Your task to perform on an android device: clear history in the chrome app Image 0: 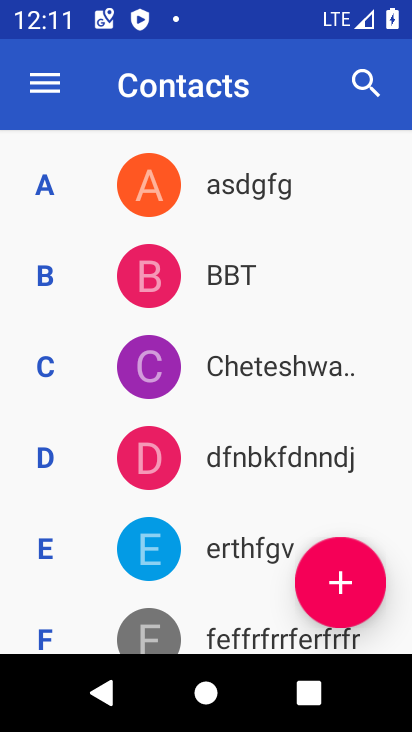
Step 0: press home button
Your task to perform on an android device: clear history in the chrome app Image 1: 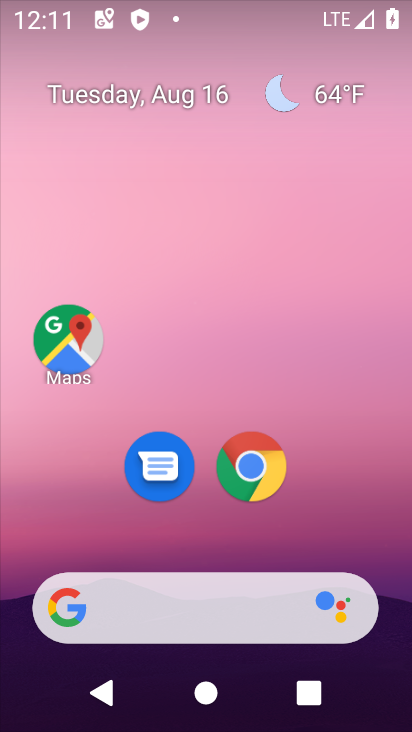
Step 1: drag from (232, 595) to (227, 95)
Your task to perform on an android device: clear history in the chrome app Image 2: 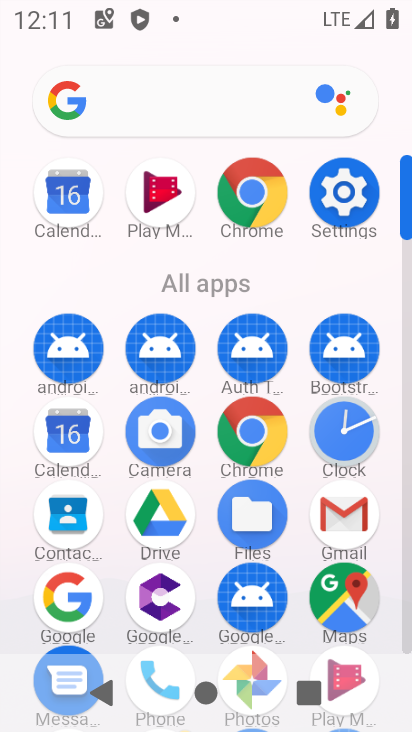
Step 2: click (265, 431)
Your task to perform on an android device: clear history in the chrome app Image 3: 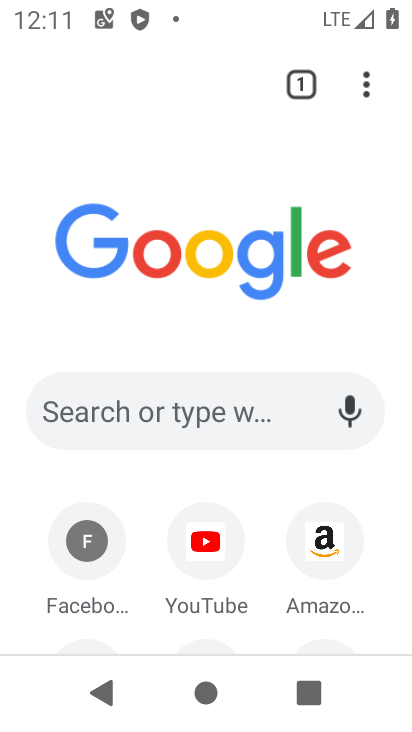
Step 3: click (376, 81)
Your task to perform on an android device: clear history in the chrome app Image 4: 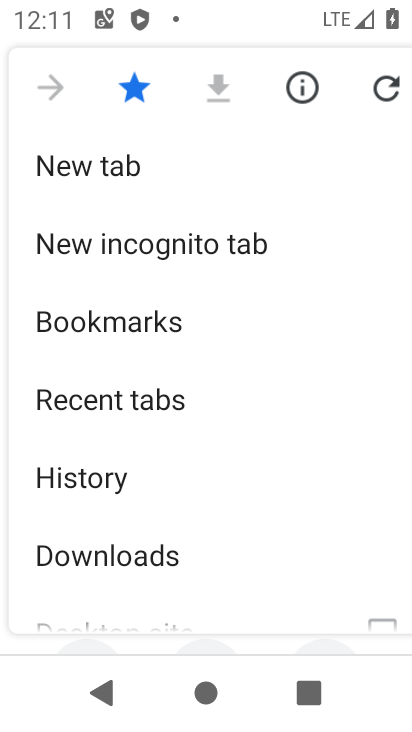
Step 4: click (91, 464)
Your task to perform on an android device: clear history in the chrome app Image 5: 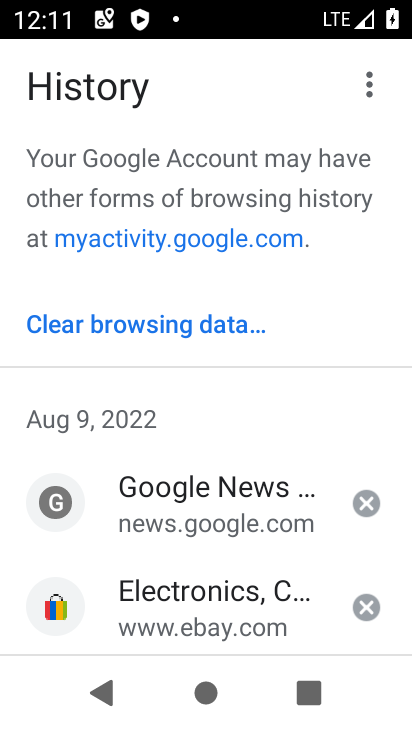
Step 5: drag from (200, 591) to (189, 401)
Your task to perform on an android device: clear history in the chrome app Image 6: 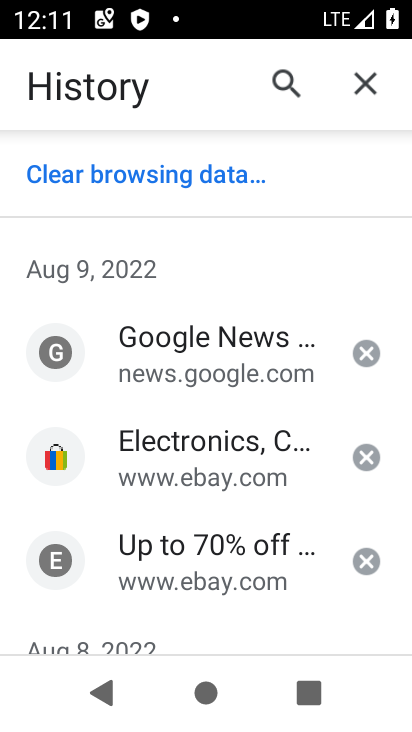
Step 6: click (177, 174)
Your task to perform on an android device: clear history in the chrome app Image 7: 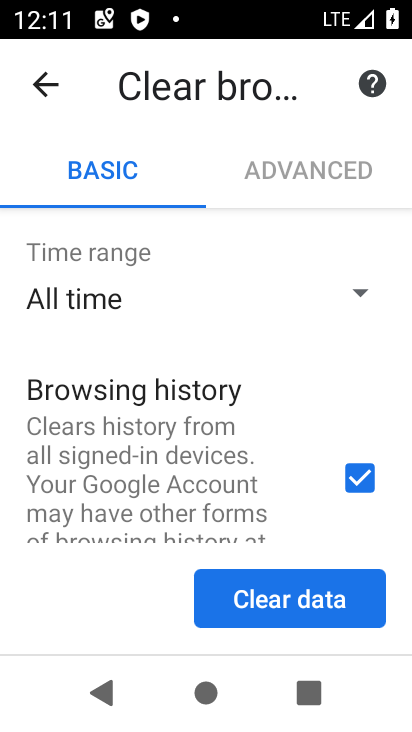
Step 7: click (241, 601)
Your task to perform on an android device: clear history in the chrome app Image 8: 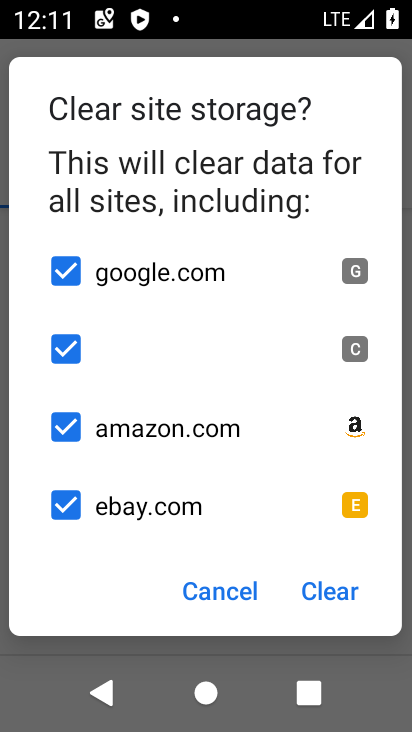
Step 8: click (355, 592)
Your task to perform on an android device: clear history in the chrome app Image 9: 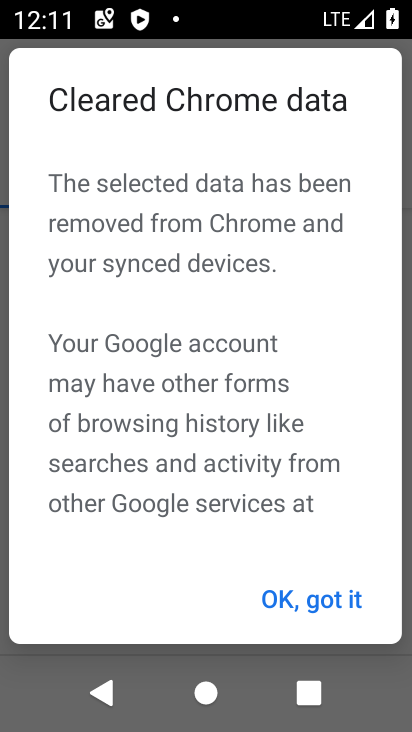
Step 9: click (311, 616)
Your task to perform on an android device: clear history in the chrome app Image 10: 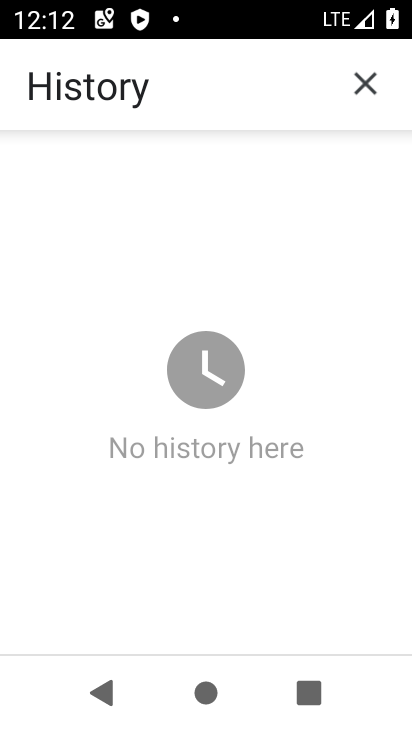
Step 10: task complete